Your task to perform on an android device: turn off location history Image 0: 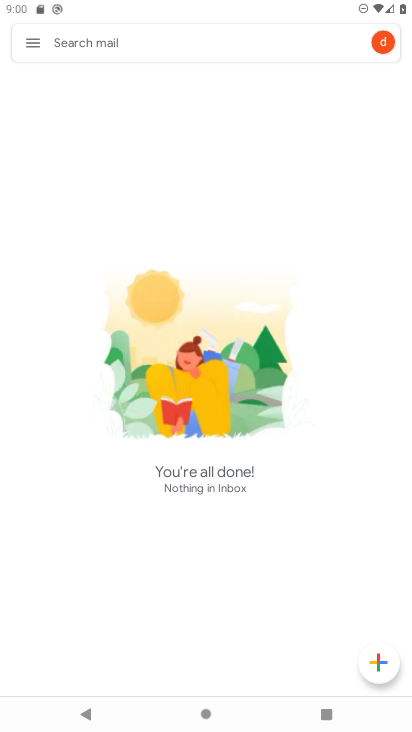
Step 0: press home button
Your task to perform on an android device: turn off location history Image 1: 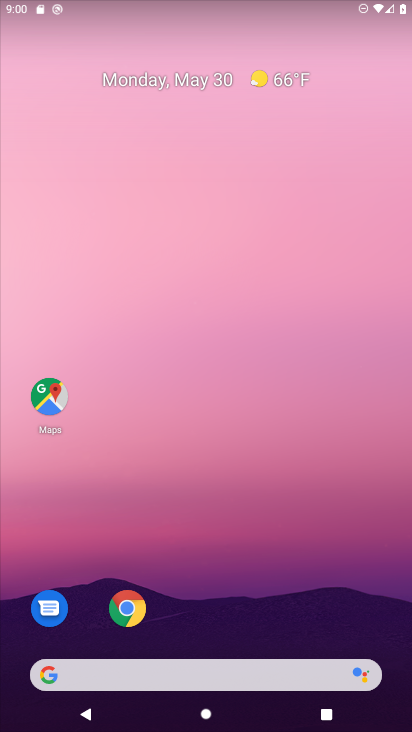
Step 1: drag from (224, 720) to (234, 92)
Your task to perform on an android device: turn off location history Image 2: 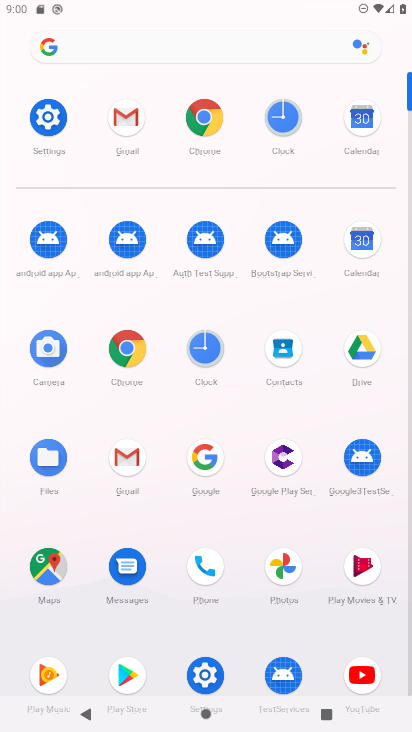
Step 2: click (213, 677)
Your task to perform on an android device: turn off location history Image 3: 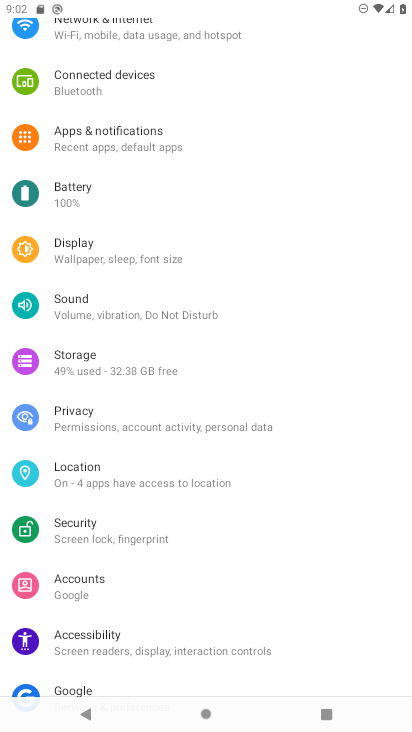
Step 3: click (97, 477)
Your task to perform on an android device: turn off location history Image 4: 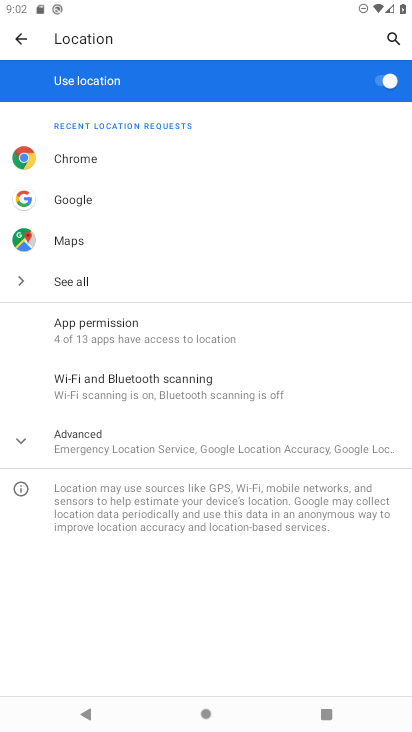
Step 4: click (376, 78)
Your task to perform on an android device: turn off location history Image 5: 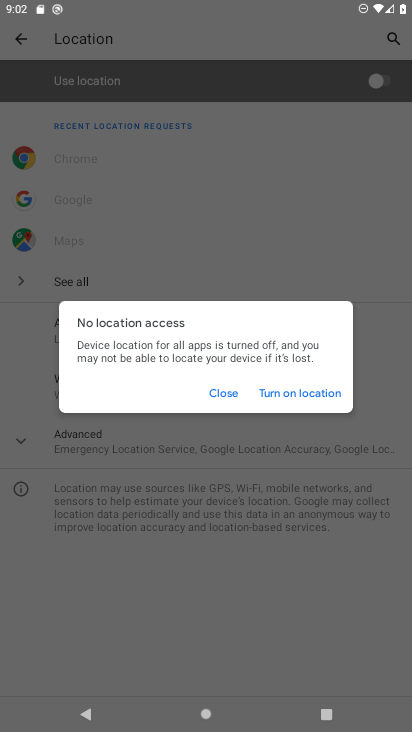
Step 5: task complete